Your task to perform on an android device: Open wifi settings Image 0: 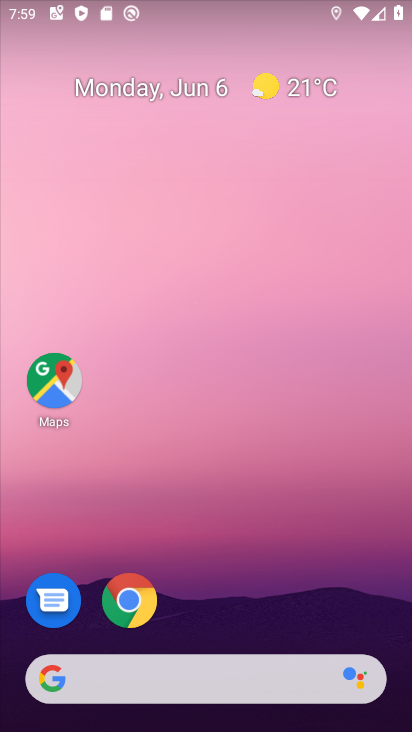
Step 0: drag from (379, 641) to (328, 72)
Your task to perform on an android device: Open wifi settings Image 1: 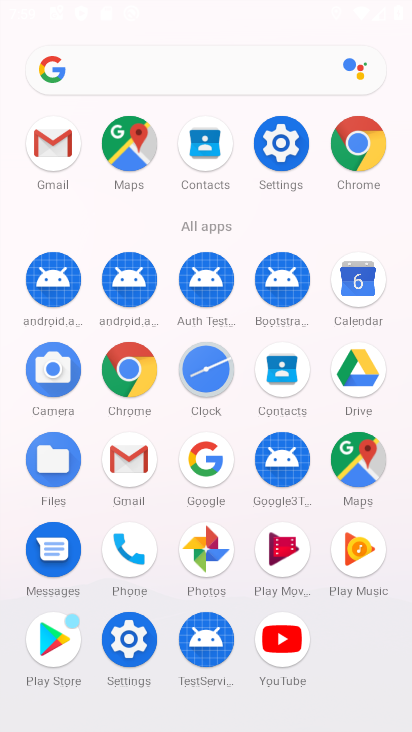
Step 1: click (130, 639)
Your task to perform on an android device: Open wifi settings Image 2: 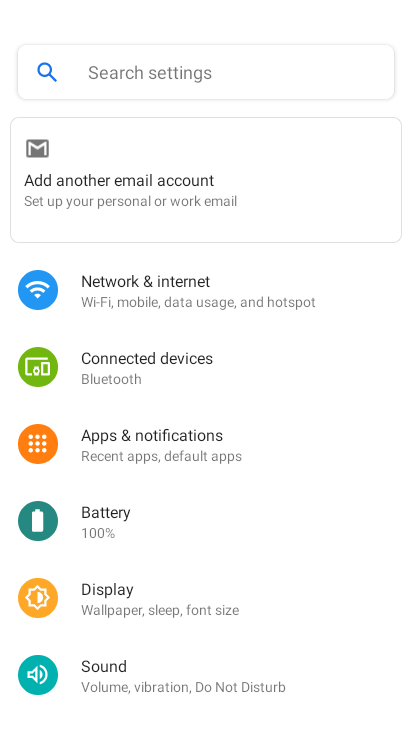
Step 2: click (124, 275)
Your task to perform on an android device: Open wifi settings Image 3: 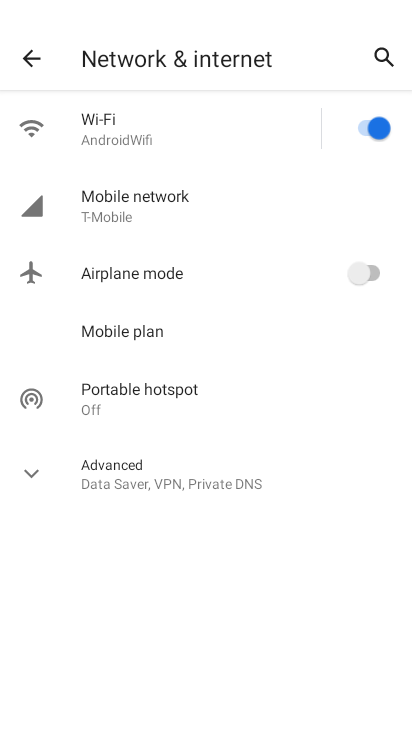
Step 3: click (87, 136)
Your task to perform on an android device: Open wifi settings Image 4: 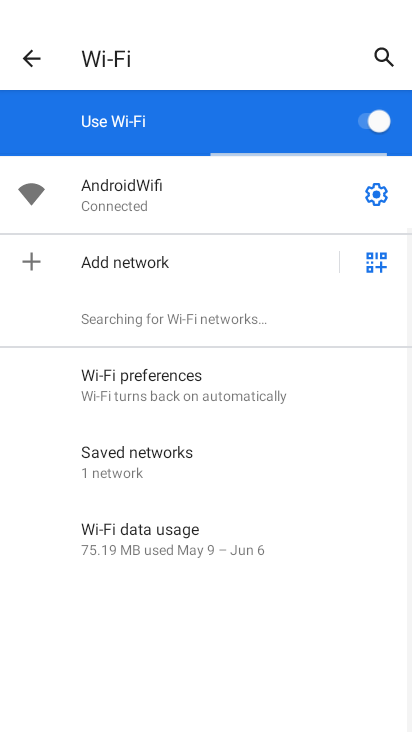
Step 4: click (374, 194)
Your task to perform on an android device: Open wifi settings Image 5: 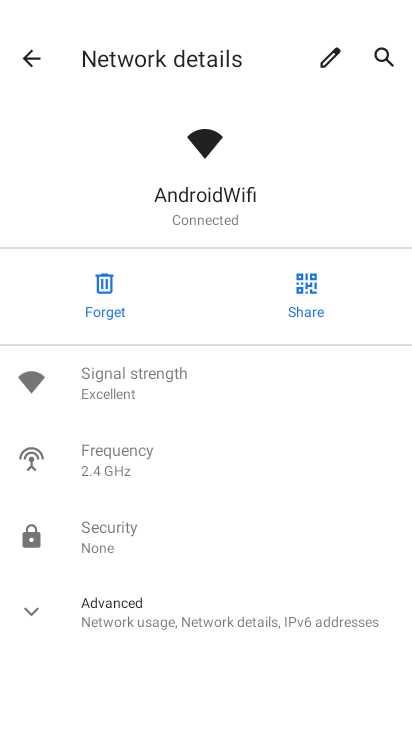
Step 5: click (26, 607)
Your task to perform on an android device: Open wifi settings Image 6: 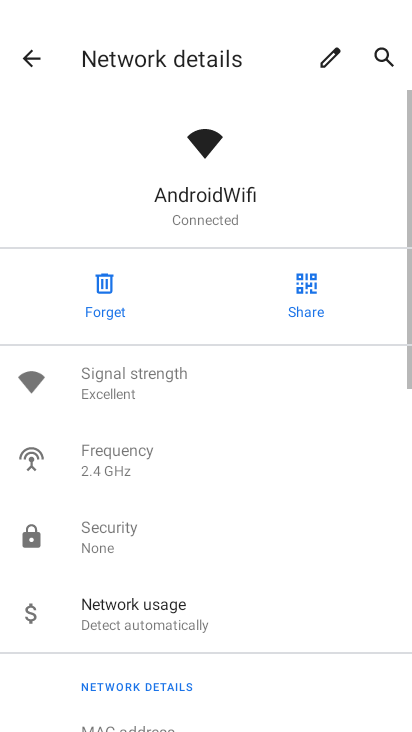
Step 6: task complete